Your task to perform on an android device: Do I have any events this weekend? Image 0: 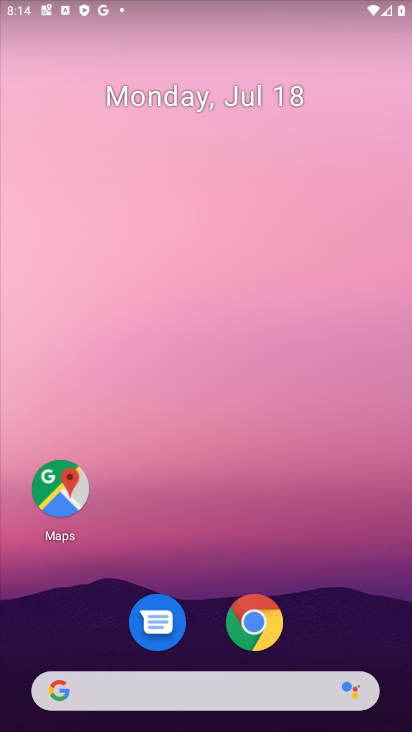
Step 0: drag from (228, 629) to (272, 170)
Your task to perform on an android device: Do I have any events this weekend? Image 1: 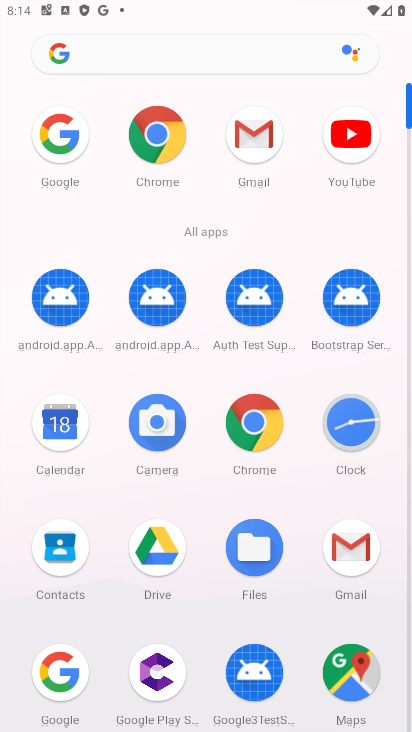
Step 1: drag from (229, 578) to (236, 334)
Your task to perform on an android device: Do I have any events this weekend? Image 2: 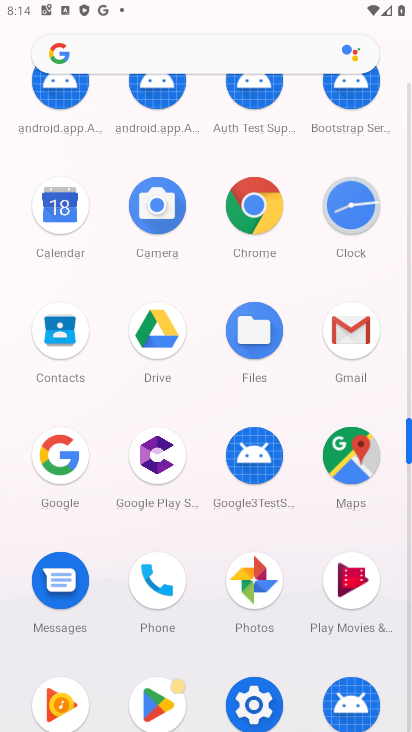
Step 2: drag from (259, 396) to (250, 729)
Your task to perform on an android device: Do I have any events this weekend? Image 3: 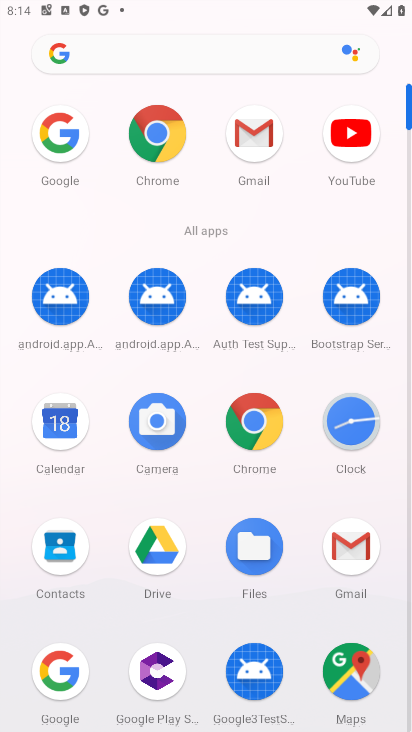
Step 3: click (62, 441)
Your task to perform on an android device: Do I have any events this weekend? Image 4: 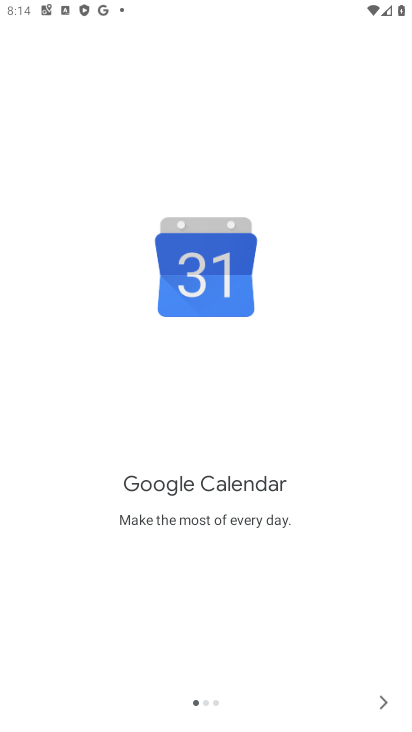
Step 4: click (383, 703)
Your task to perform on an android device: Do I have any events this weekend? Image 5: 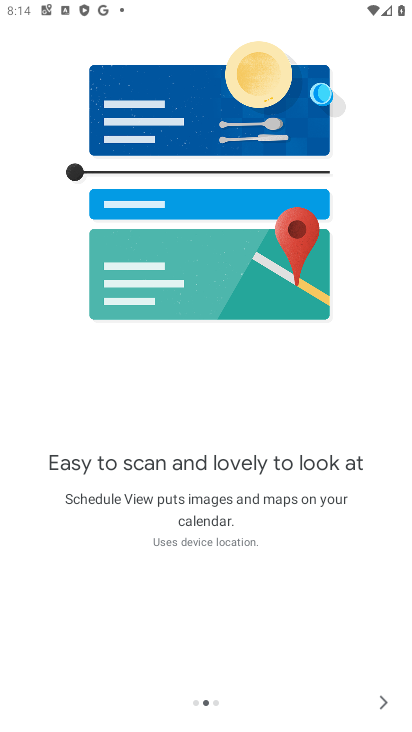
Step 5: click (378, 697)
Your task to perform on an android device: Do I have any events this weekend? Image 6: 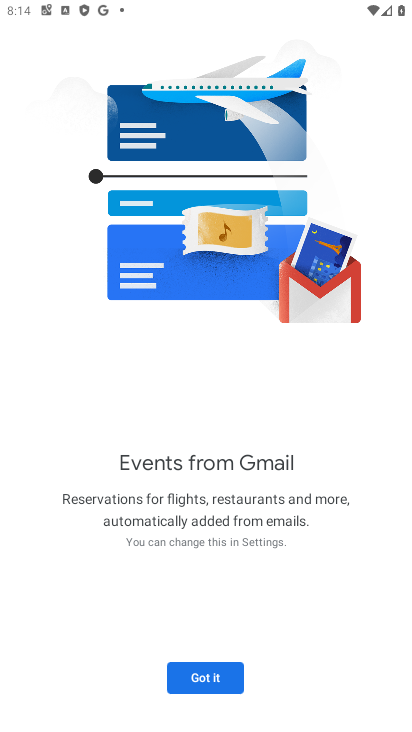
Step 6: click (222, 683)
Your task to perform on an android device: Do I have any events this weekend? Image 7: 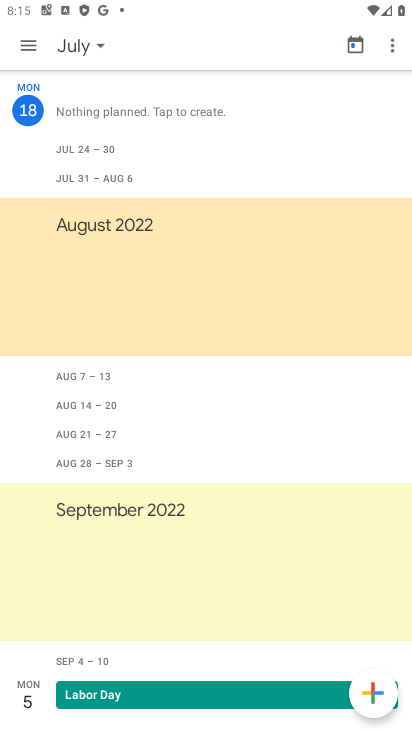
Step 7: click (95, 50)
Your task to perform on an android device: Do I have any events this weekend? Image 8: 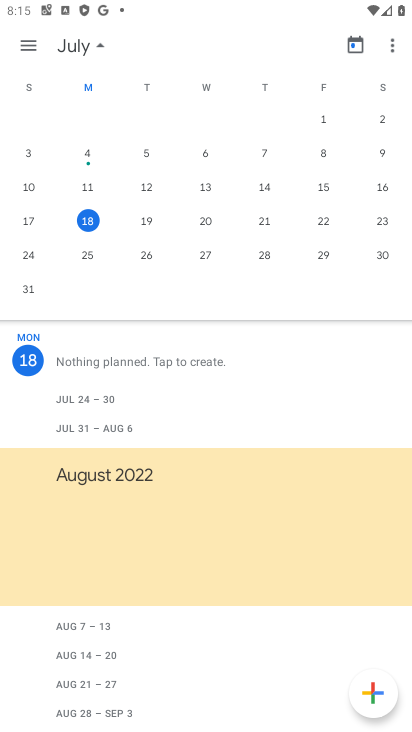
Step 8: click (392, 225)
Your task to perform on an android device: Do I have any events this weekend? Image 9: 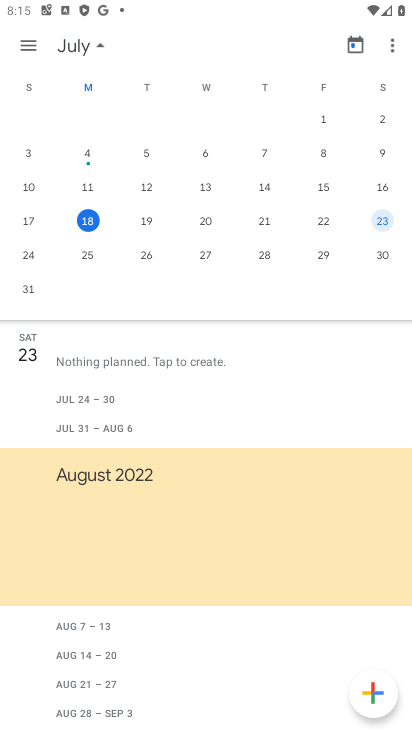
Step 9: task complete